Your task to perform on an android device: Open Reddit.com Image 0: 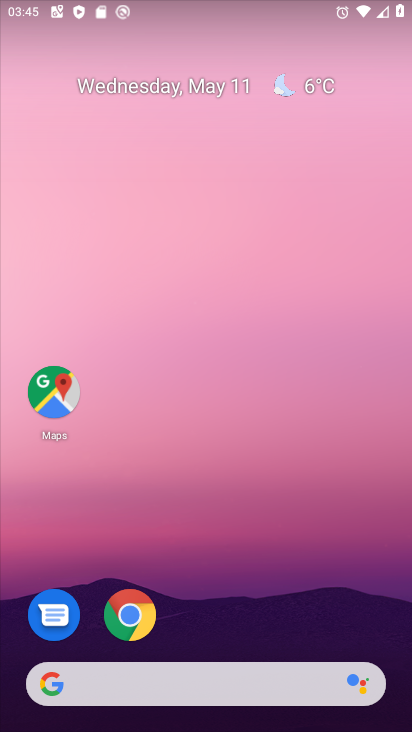
Step 0: drag from (276, 584) to (265, 56)
Your task to perform on an android device: Open Reddit.com Image 1: 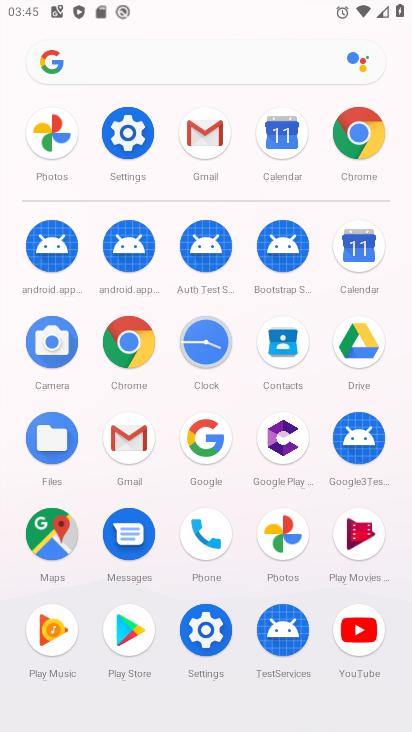
Step 1: click (127, 350)
Your task to perform on an android device: Open Reddit.com Image 2: 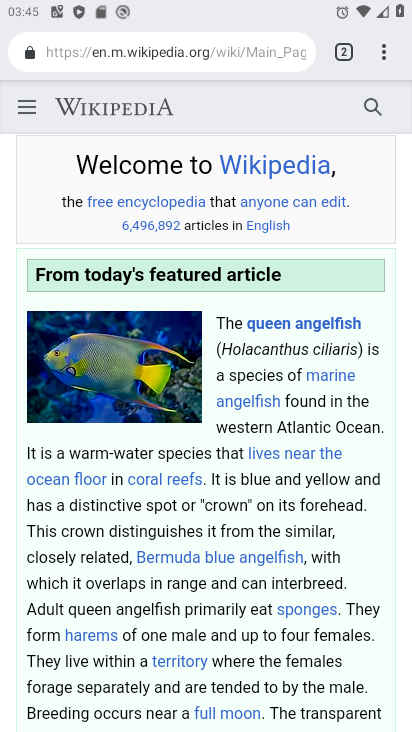
Step 2: click (205, 54)
Your task to perform on an android device: Open Reddit.com Image 3: 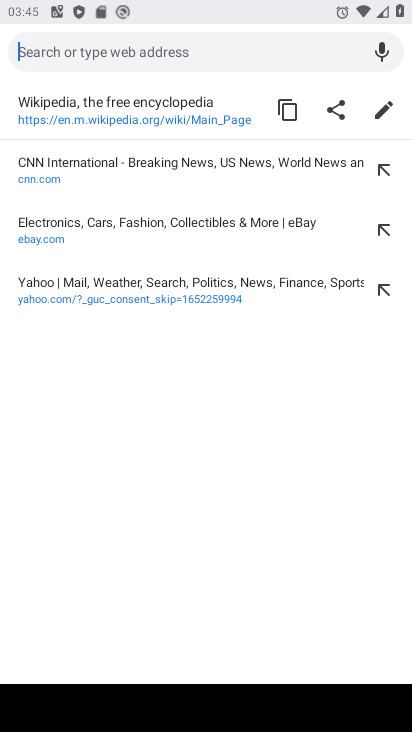
Step 3: type "reddit.com"
Your task to perform on an android device: Open Reddit.com Image 4: 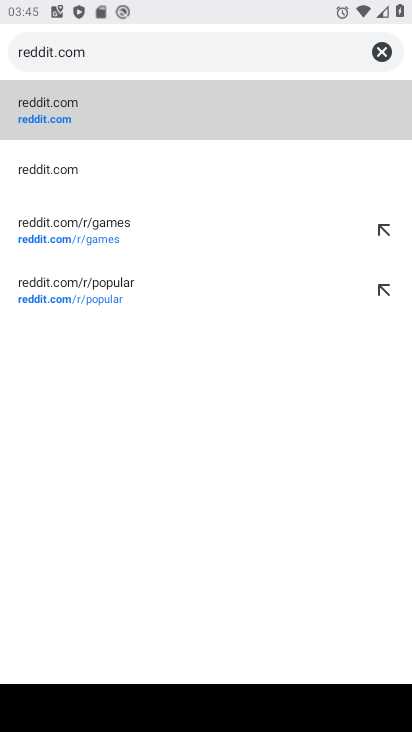
Step 4: click (49, 112)
Your task to perform on an android device: Open Reddit.com Image 5: 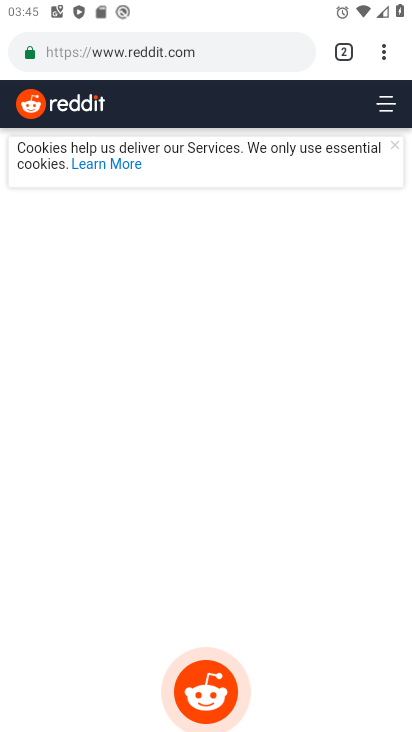
Step 5: task complete